Your task to perform on an android device: Open accessibility settings Image 0: 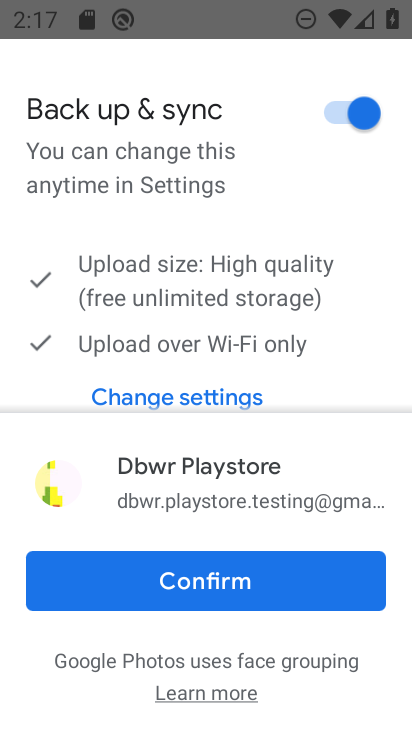
Step 0: press home button
Your task to perform on an android device: Open accessibility settings Image 1: 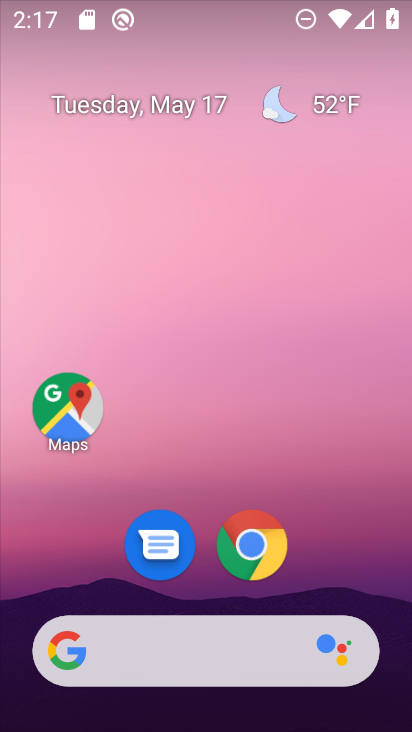
Step 1: drag from (364, 583) to (405, 190)
Your task to perform on an android device: Open accessibility settings Image 2: 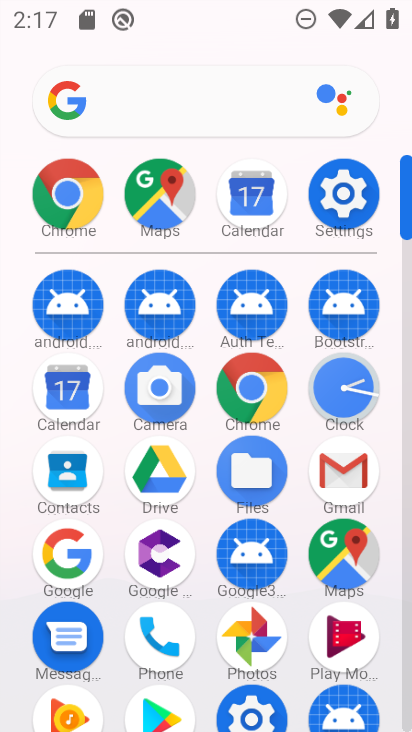
Step 2: click (362, 215)
Your task to perform on an android device: Open accessibility settings Image 3: 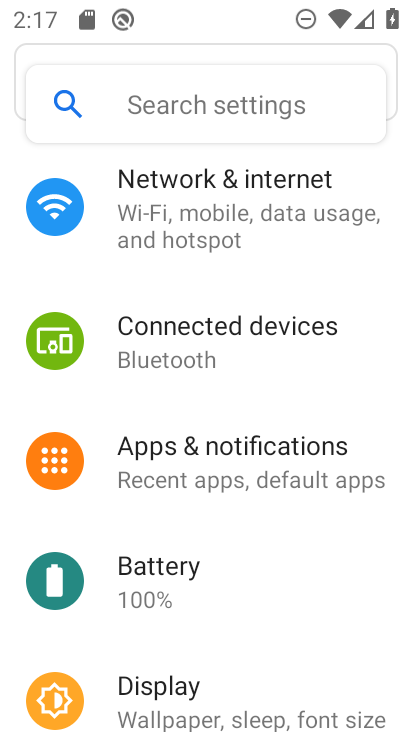
Step 3: drag from (326, 590) to (330, 470)
Your task to perform on an android device: Open accessibility settings Image 4: 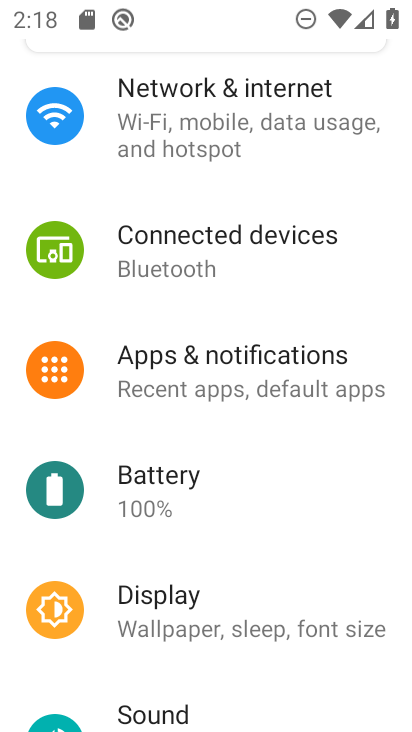
Step 4: drag from (332, 551) to (330, 455)
Your task to perform on an android device: Open accessibility settings Image 5: 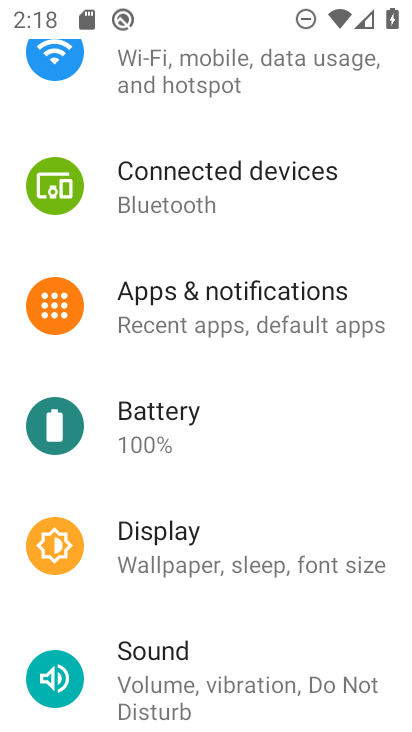
Step 5: drag from (322, 584) to (321, 458)
Your task to perform on an android device: Open accessibility settings Image 6: 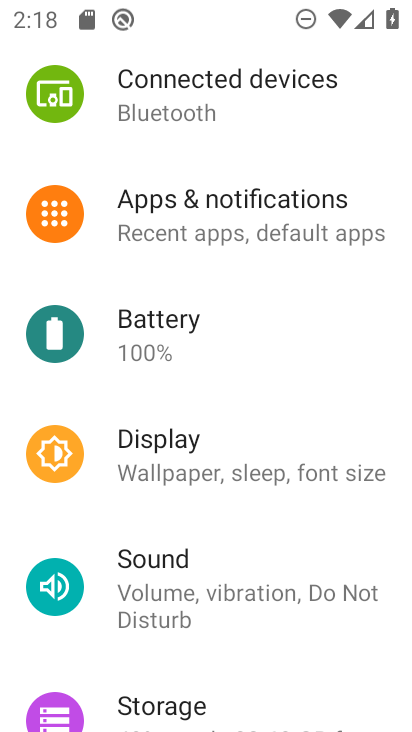
Step 6: drag from (307, 543) to (311, 451)
Your task to perform on an android device: Open accessibility settings Image 7: 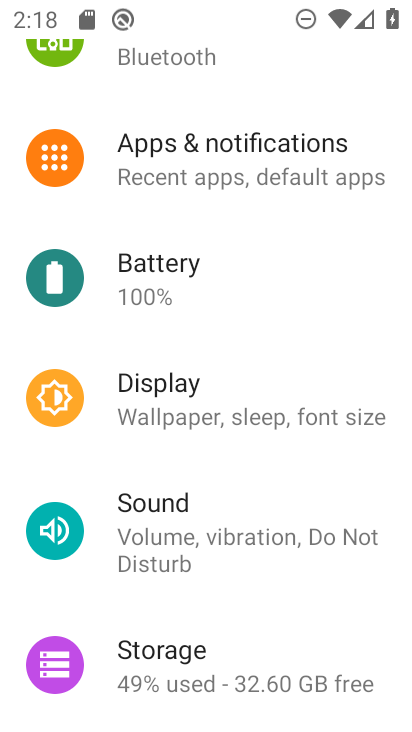
Step 7: drag from (307, 510) to (311, 412)
Your task to perform on an android device: Open accessibility settings Image 8: 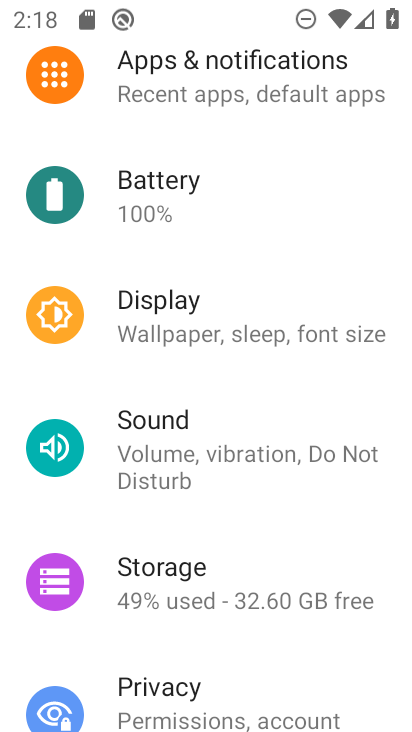
Step 8: drag from (307, 520) to (321, 451)
Your task to perform on an android device: Open accessibility settings Image 9: 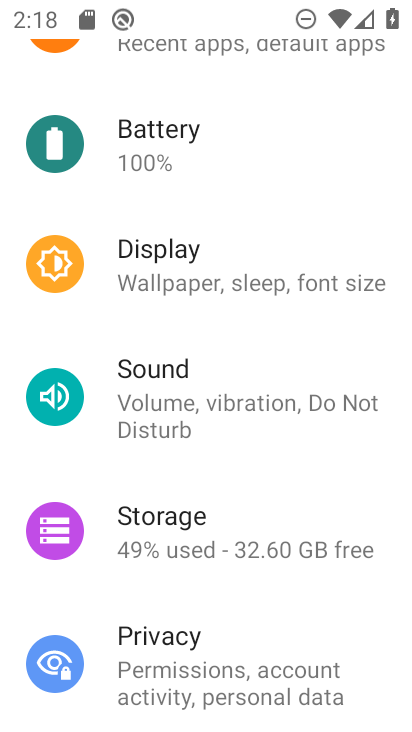
Step 9: drag from (311, 603) to (322, 498)
Your task to perform on an android device: Open accessibility settings Image 10: 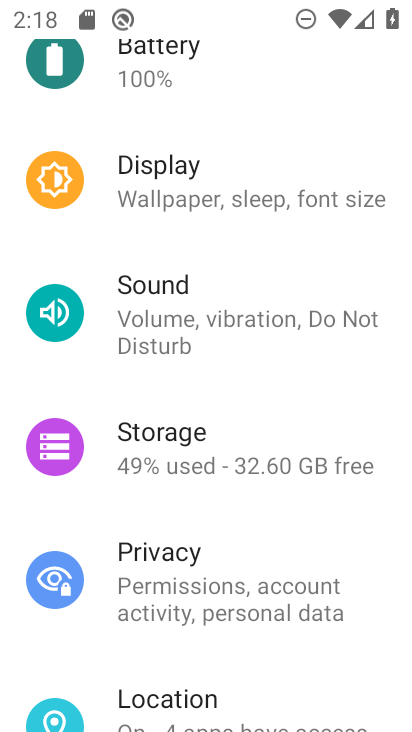
Step 10: drag from (332, 665) to (343, 537)
Your task to perform on an android device: Open accessibility settings Image 11: 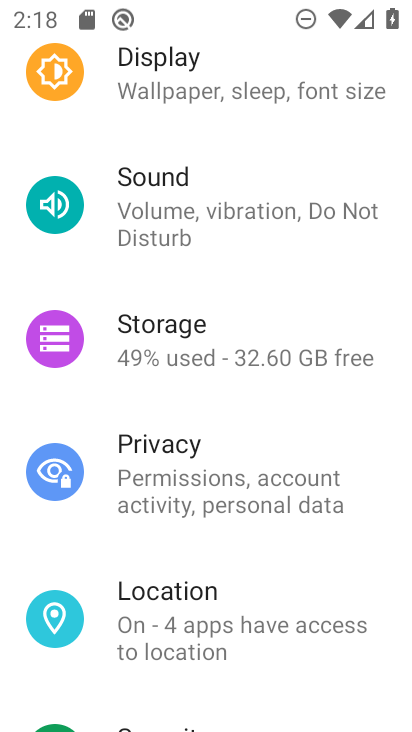
Step 11: drag from (319, 683) to (334, 557)
Your task to perform on an android device: Open accessibility settings Image 12: 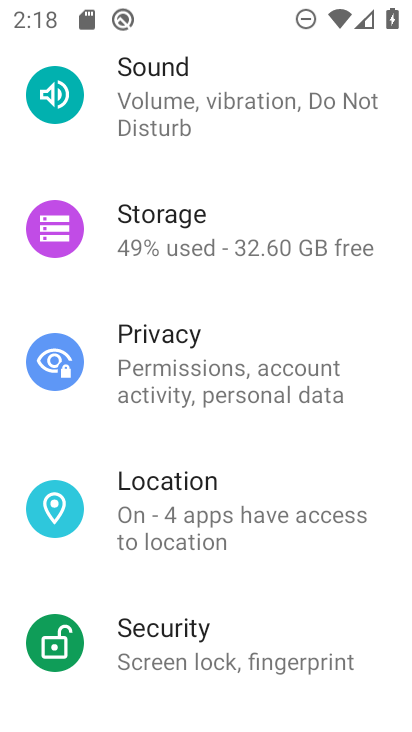
Step 12: drag from (328, 708) to (326, 564)
Your task to perform on an android device: Open accessibility settings Image 13: 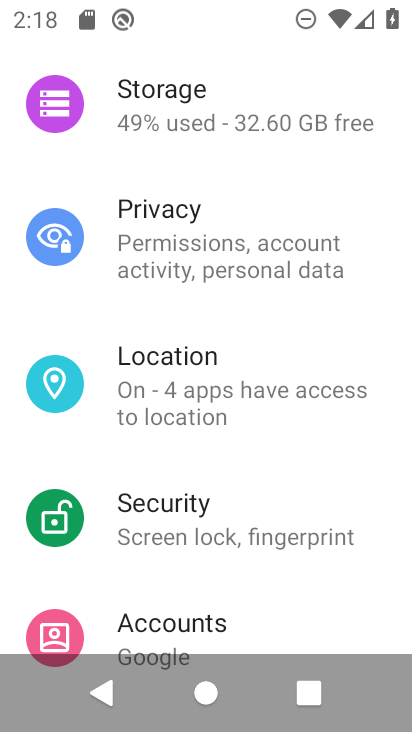
Step 13: drag from (336, 608) to (336, 499)
Your task to perform on an android device: Open accessibility settings Image 14: 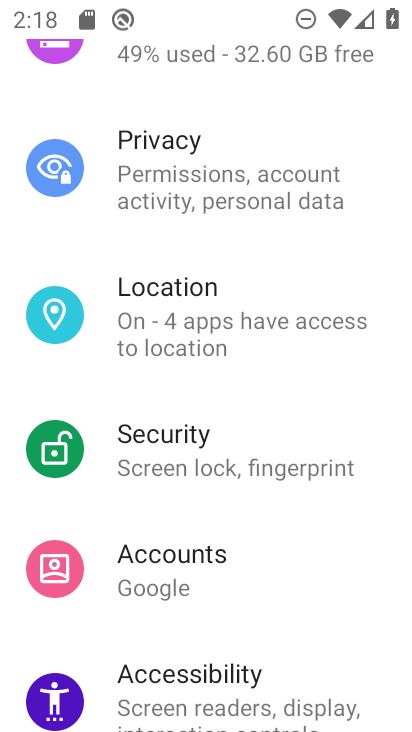
Step 14: drag from (320, 613) to (314, 509)
Your task to perform on an android device: Open accessibility settings Image 15: 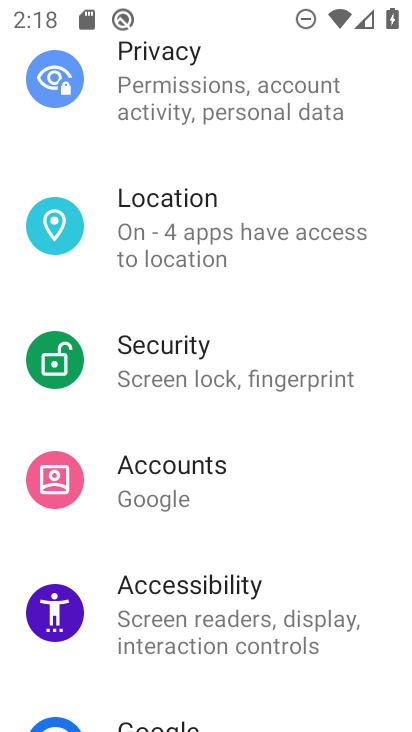
Step 15: drag from (336, 672) to (337, 533)
Your task to perform on an android device: Open accessibility settings Image 16: 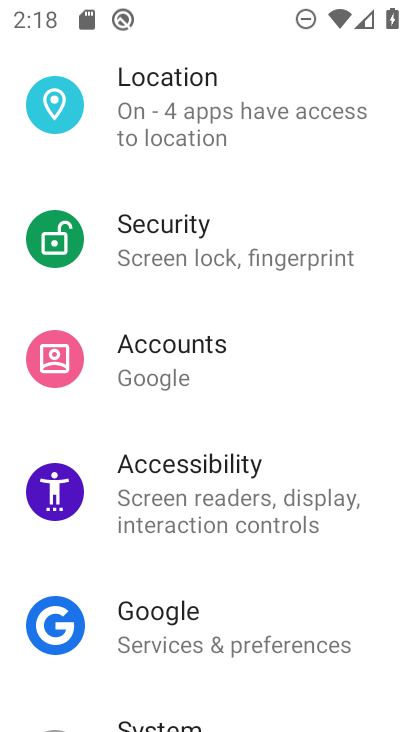
Step 16: drag from (326, 691) to (313, 556)
Your task to perform on an android device: Open accessibility settings Image 17: 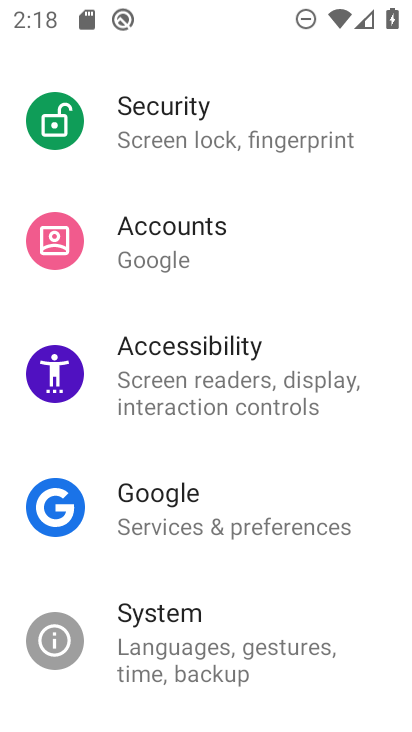
Step 17: click (249, 389)
Your task to perform on an android device: Open accessibility settings Image 18: 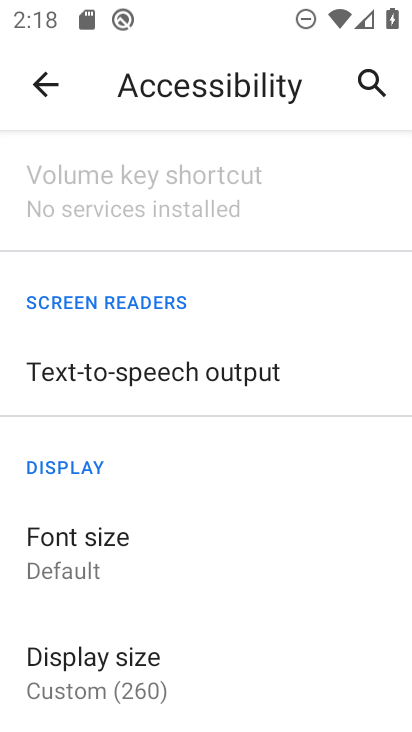
Step 18: task complete